Your task to perform on an android device: Open Chrome and go to the settings page Image 0: 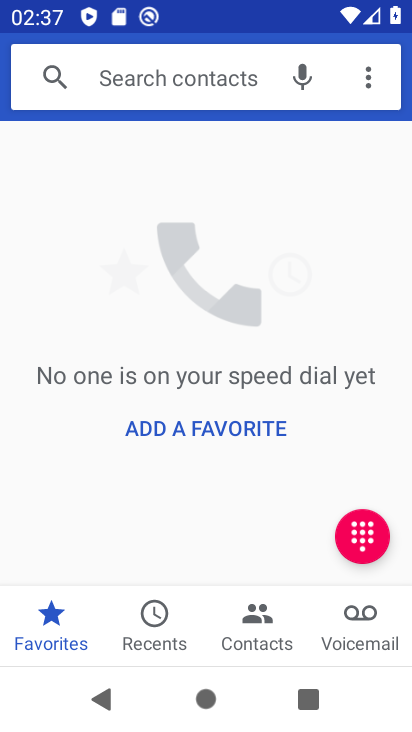
Step 0: press home button
Your task to perform on an android device: Open Chrome and go to the settings page Image 1: 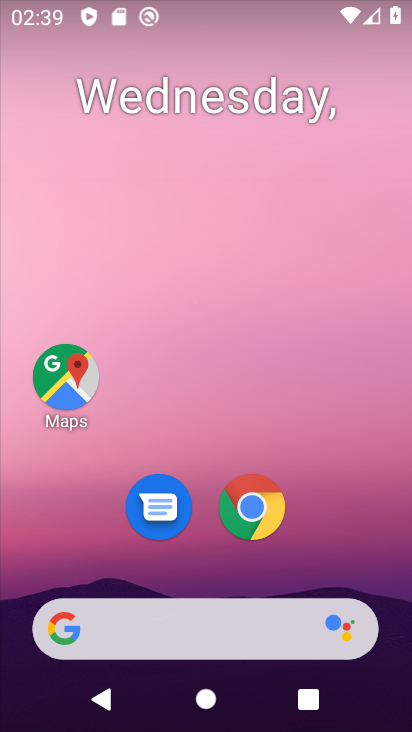
Step 1: click (262, 482)
Your task to perform on an android device: Open Chrome and go to the settings page Image 2: 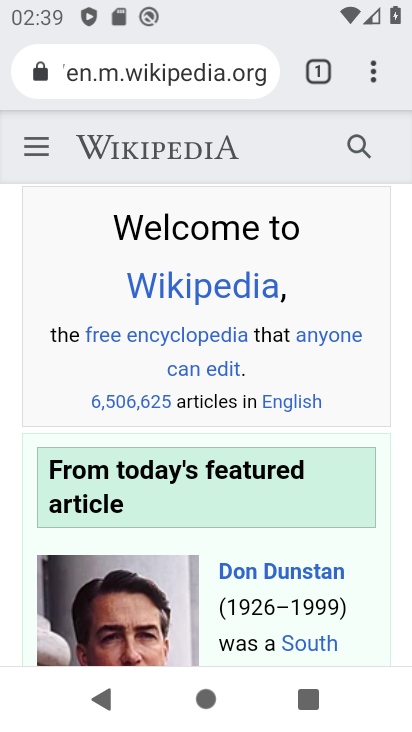
Step 2: click (399, 49)
Your task to perform on an android device: Open Chrome and go to the settings page Image 3: 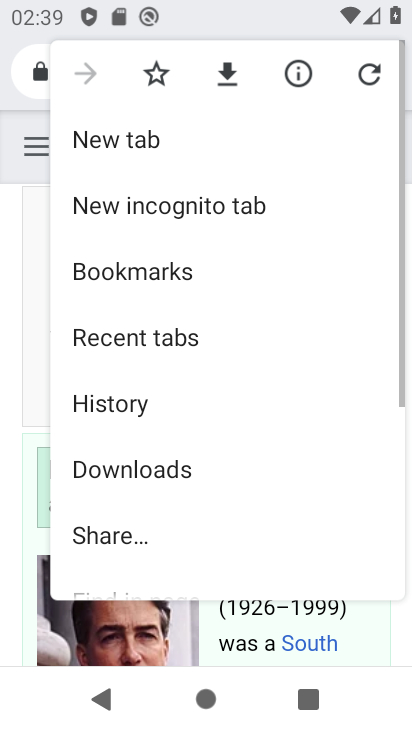
Step 3: drag from (143, 386) to (223, 86)
Your task to perform on an android device: Open Chrome and go to the settings page Image 4: 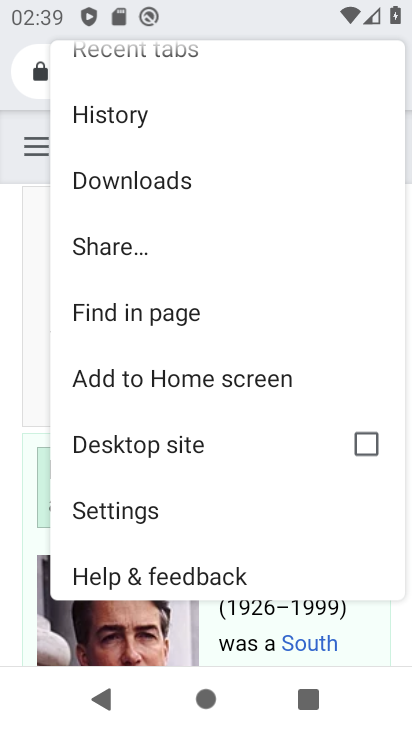
Step 4: click (115, 492)
Your task to perform on an android device: Open Chrome and go to the settings page Image 5: 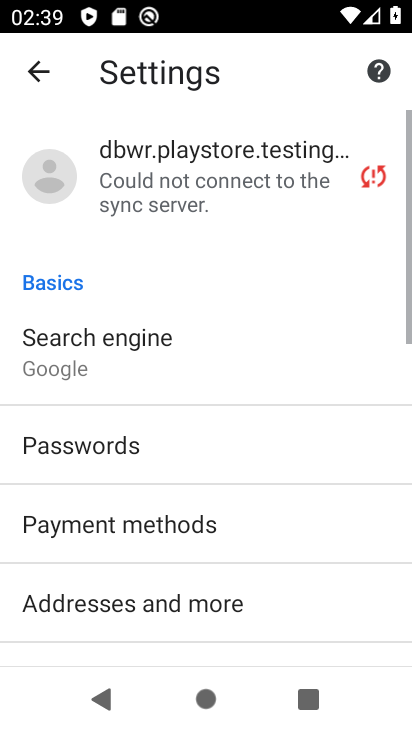
Step 5: task complete